Your task to perform on an android device: turn on notifications settings in the gmail app Image 0: 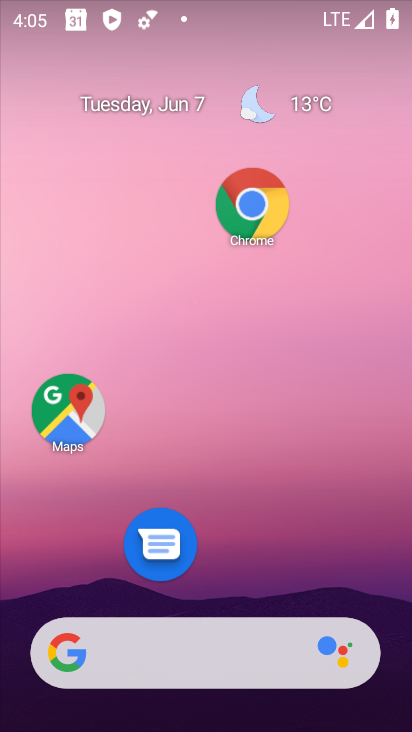
Step 0: press home button
Your task to perform on an android device: turn on notifications settings in the gmail app Image 1: 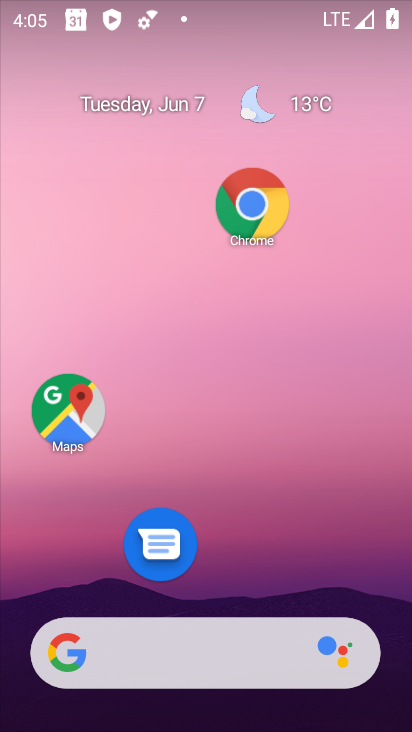
Step 1: drag from (225, 586) to (243, 37)
Your task to perform on an android device: turn on notifications settings in the gmail app Image 2: 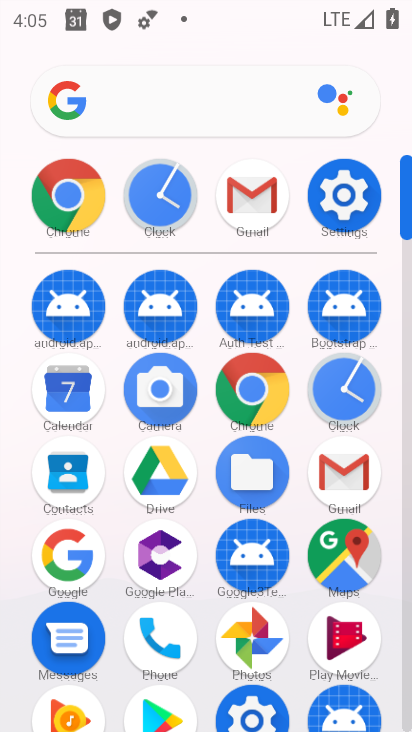
Step 2: click (346, 468)
Your task to perform on an android device: turn on notifications settings in the gmail app Image 3: 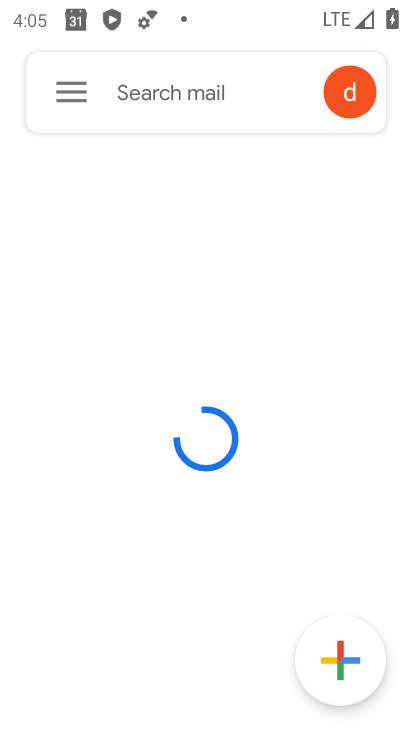
Step 3: click (78, 83)
Your task to perform on an android device: turn on notifications settings in the gmail app Image 4: 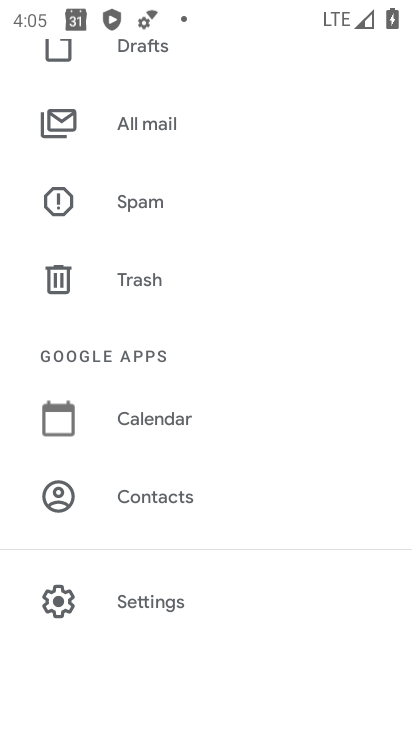
Step 4: click (95, 596)
Your task to perform on an android device: turn on notifications settings in the gmail app Image 5: 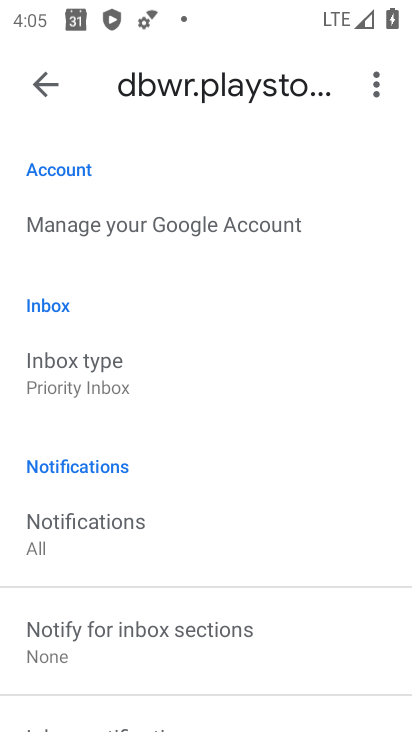
Step 5: click (51, 80)
Your task to perform on an android device: turn on notifications settings in the gmail app Image 6: 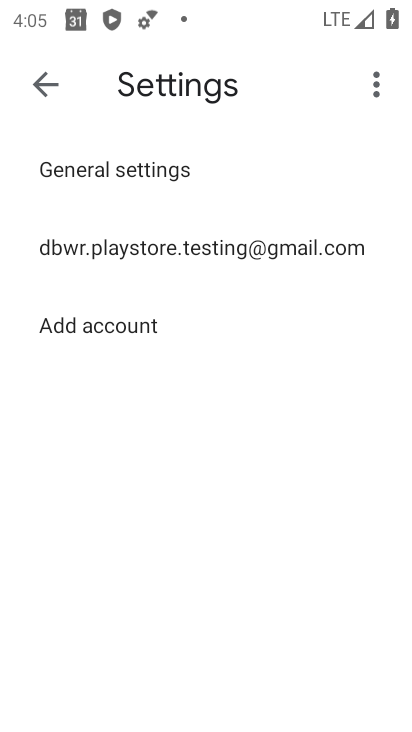
Step 6: click (134, 169)
Your task to perform on an android device: turn on notifications settings in the gmail app Image 7: 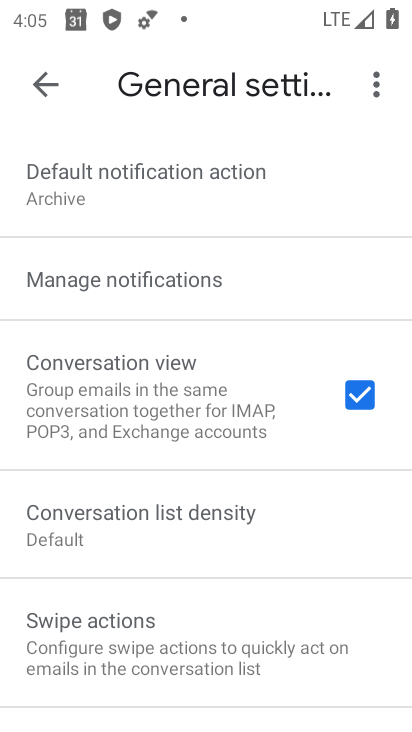
Step 7: click (153, 282)
Your task to perform on an android device: turn on notifications settings in the gmail app Image 8: 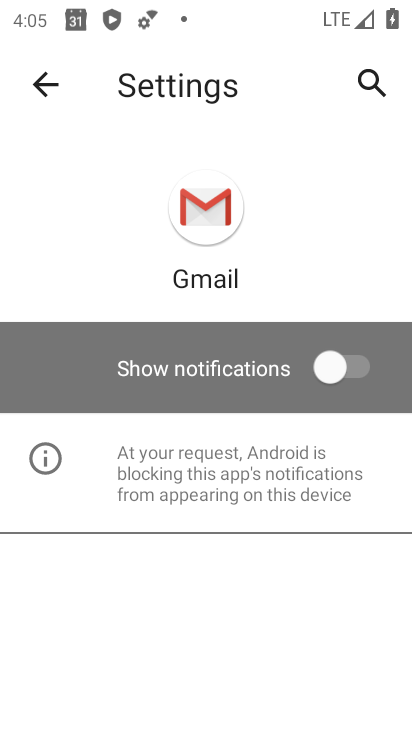
Step 8: click (343, 365)
Your task to perform on an android device: turn on notifications settings in the gmail app Image 9: 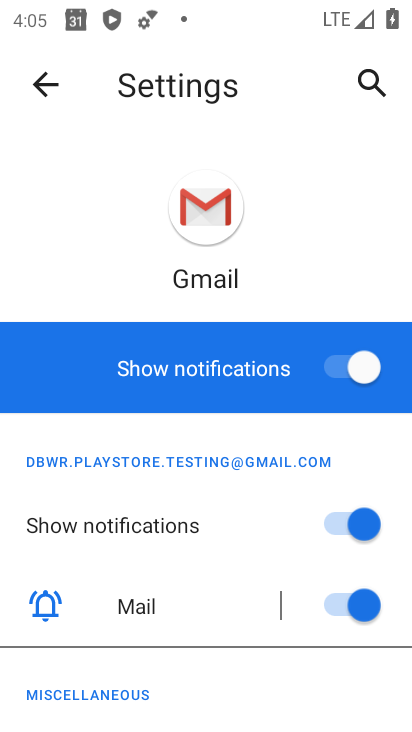
Step 9: task complete